Your task to perform on an android device: Open eBay Image 0: 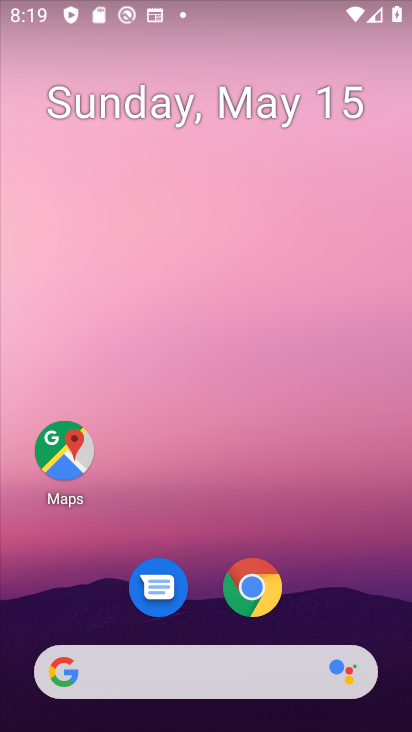
Step 0: click (251, 582)
Your task to perform on an android device: Open eBay Image 1: 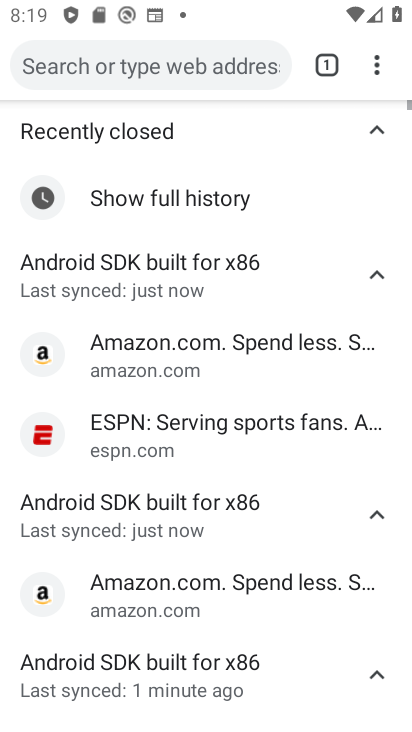
Step 1: click (126, 64)
Your task to perform on an android device: Open eBay Image 2: 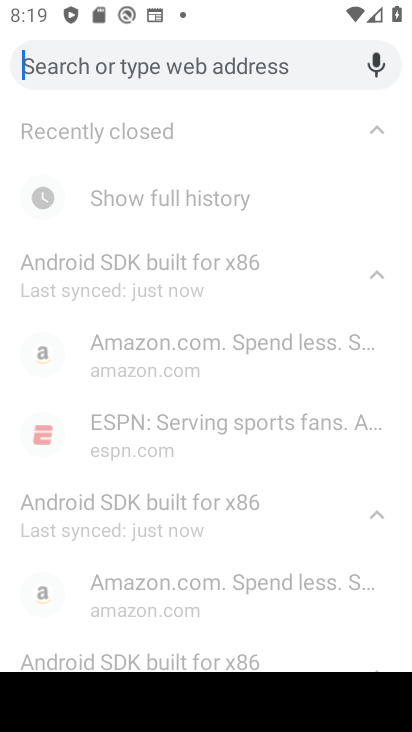
Step 2: type "eBay"
Your task to perform on an android device: Open eBay Image 3: 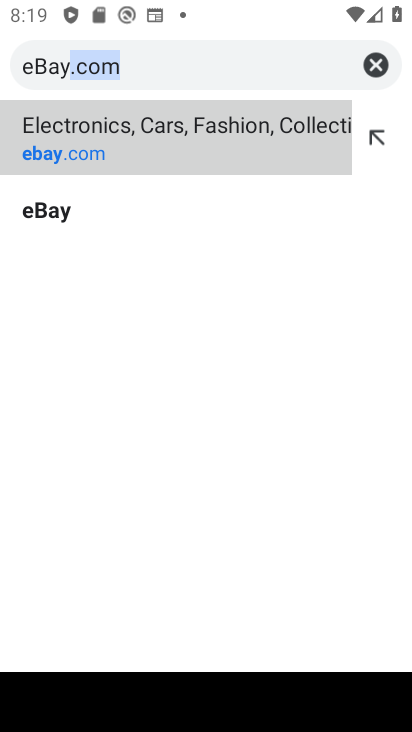
Step 3: click (82, 208)
Your task to perform on an android device: Open eBay Image 4: 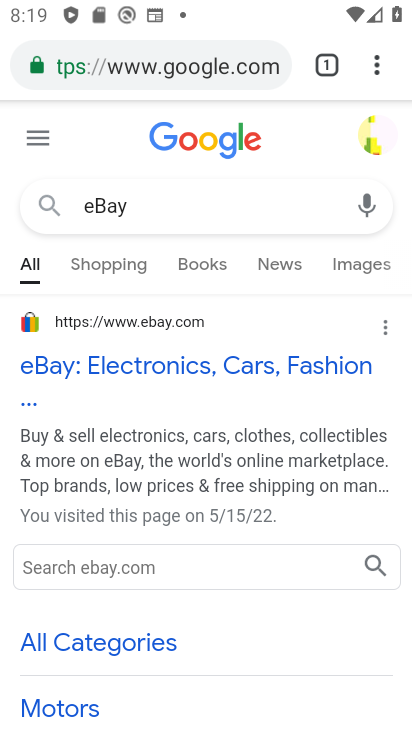
Step 4: task complete